Your task to perform on an android device: Open Google Maps Image 0: 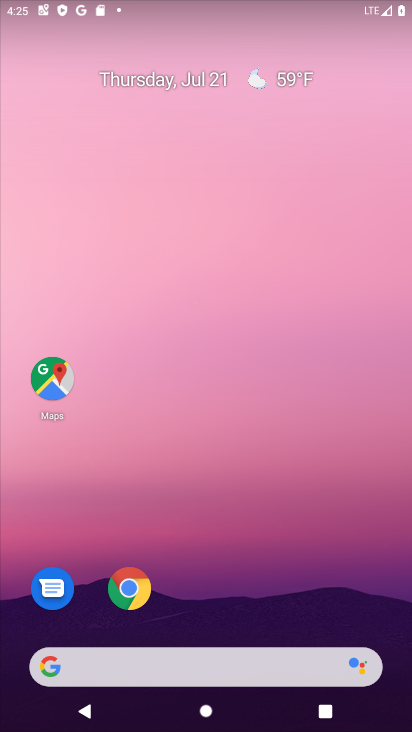
Step 0: drag from (223, 722) to (234, 178)
Your task to perform on an android device: Open Google Maps Image 1: 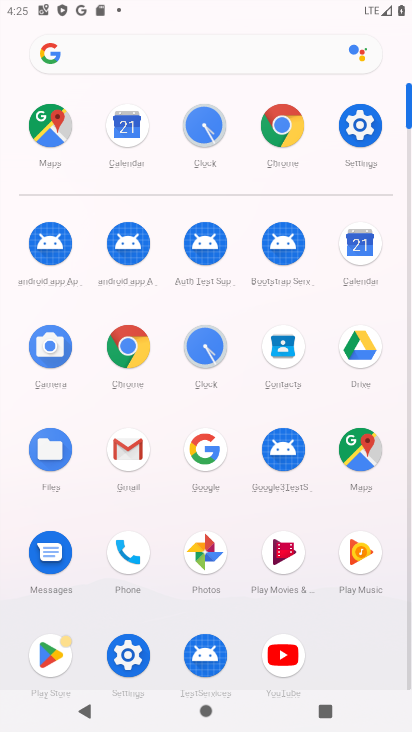
Step 1: click (356, 453)
Your task to perform on an android device: Open Google Maps Image 2: 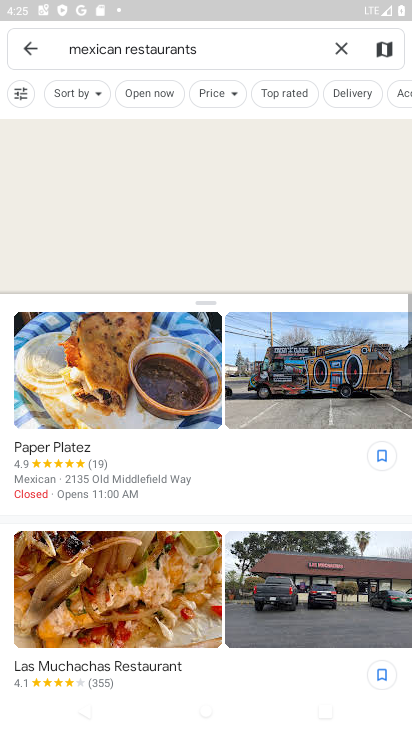
Step 2: task complete